Your task to perform on an android device: manage bookmarks in the chrome app Image 0: 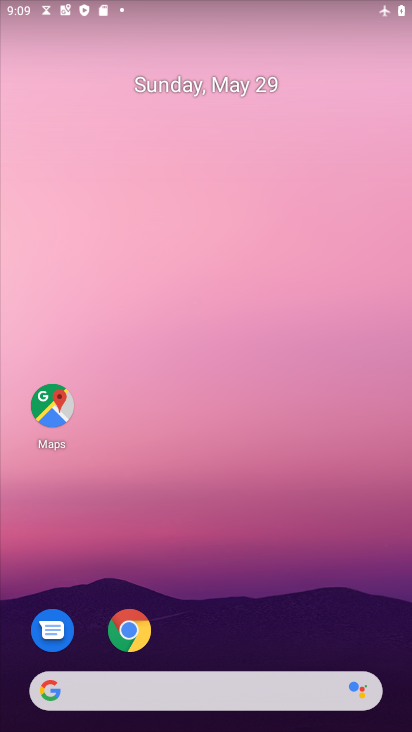
Step 0: click (120, 622)
Your task to perform on an android device: manage bookmarks in the chrome app Image 1: 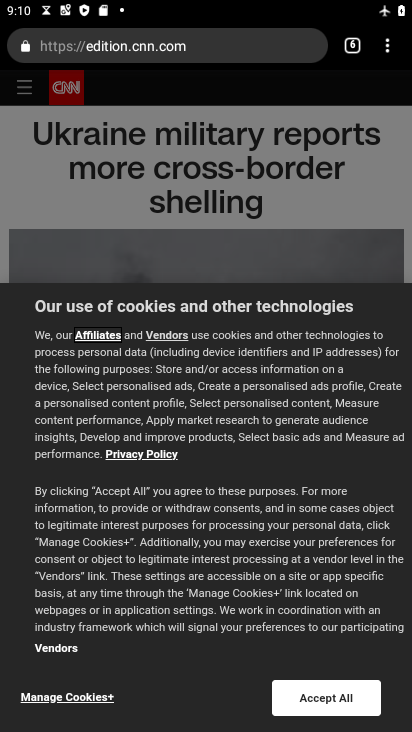
Step 1: click (391, 52)
Your task to perform on an android device: manage bookmarks in the chrome app Image 2: 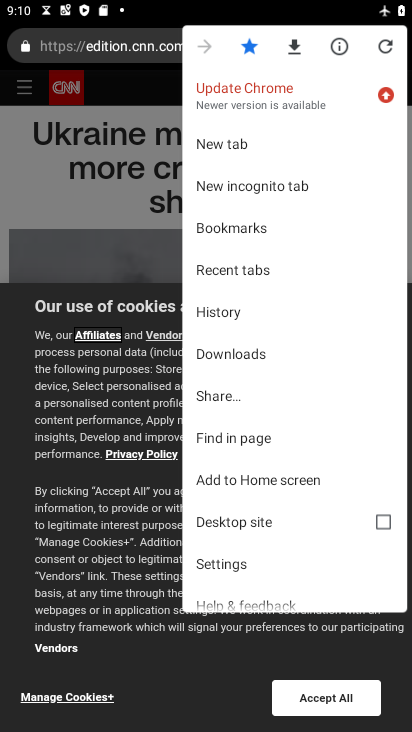
Step 2: click (242, 230)
Your task to perform on an android device: manage bookmarks in the chrome app Image 3: 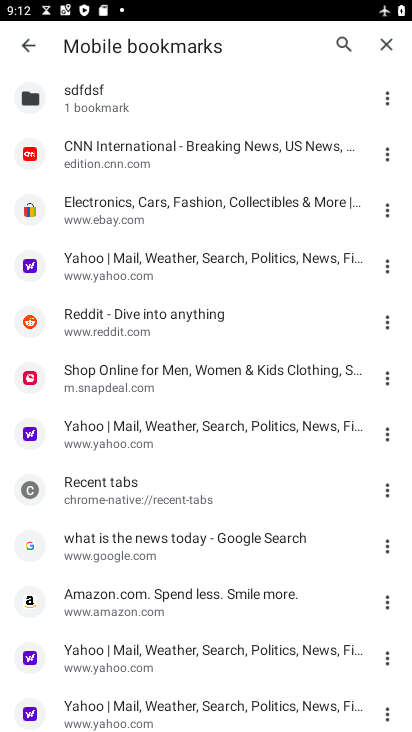
Step 3: click (393, 102)
Your task to perform on an android device: manage bookmarks in the chrome app Image 4: 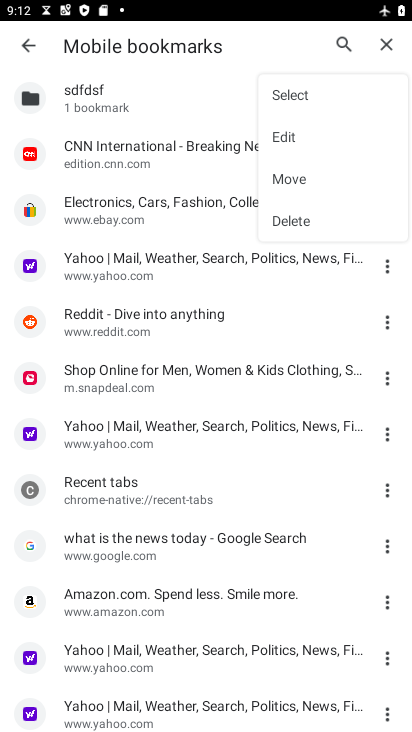
Step 4: click (312, 137)
Your task to perform on an android device: manage bookmarks in the chrome app Image 5: 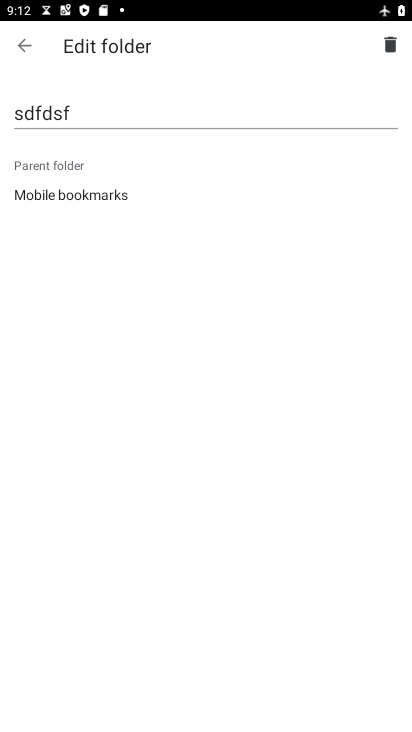
Step 5: click (396, 47)
Your task to perform on an android device: manage bookmarks in the chrome app Image 6: 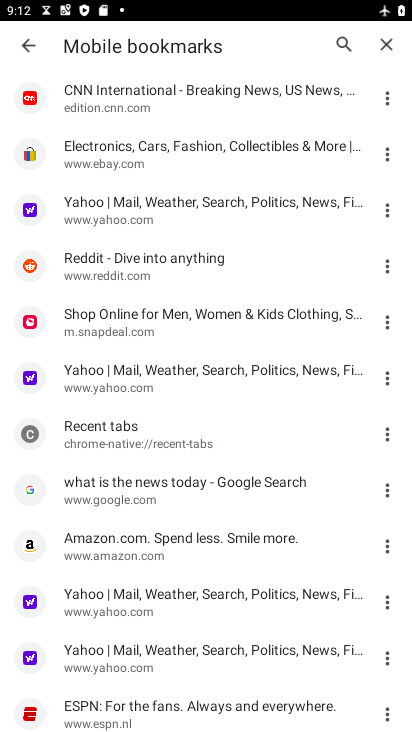
Step 6: click (388, 489)
Your task to perform on an android device: manage bookmarks in the chrome app Image 7: 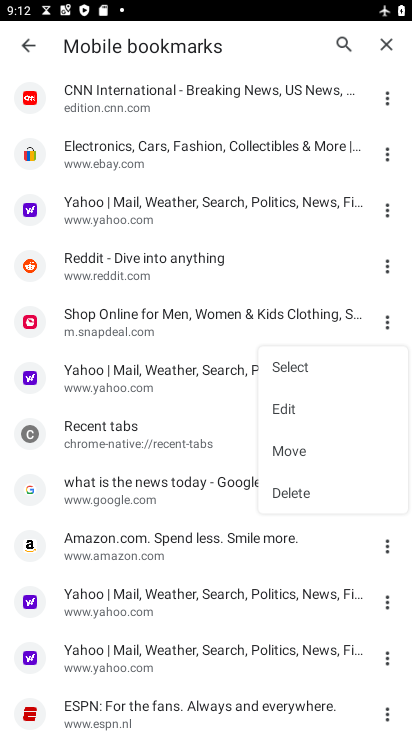
Step 7: click (292, 487)
Your task to perform on an android device: manage bookmarks in the chrome app Image 8: 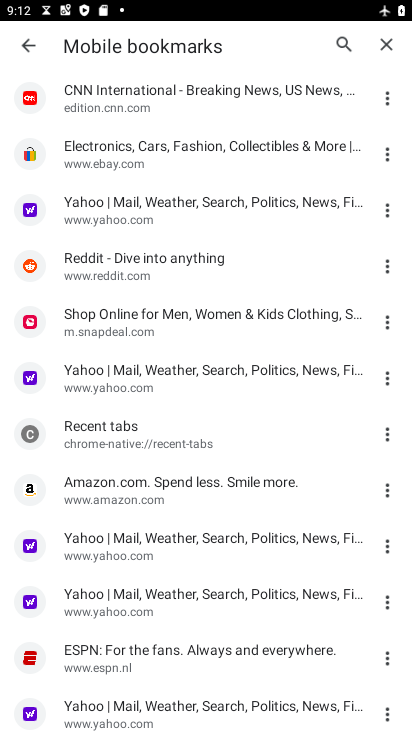
Step 8: task complete